Your task to perform on an android device: add a contact in the contacts app Image 0: 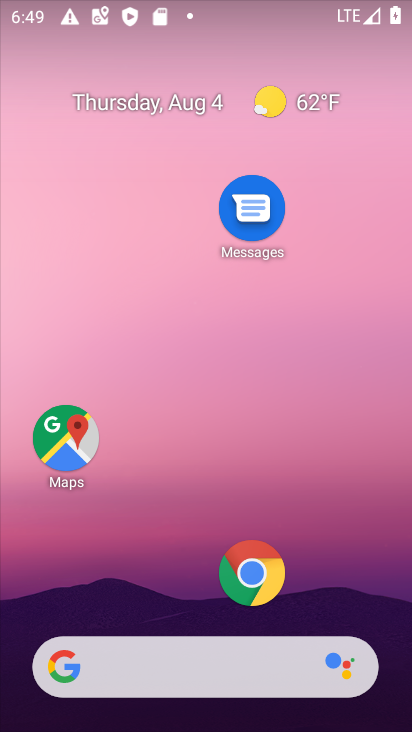
Step 0: press home button
Your task to perform on an android device: add a contact in the contacts app Image 1: 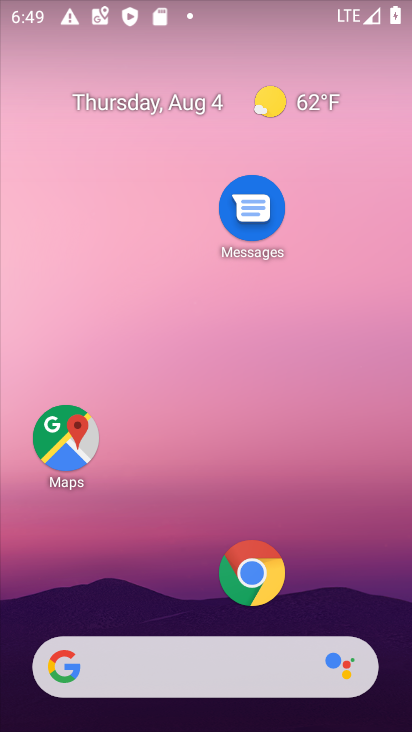
Step 1: drag from (199, 483) to (299, 3)
Your task to perform on an android device: add a contact in the contacts app Image 2: 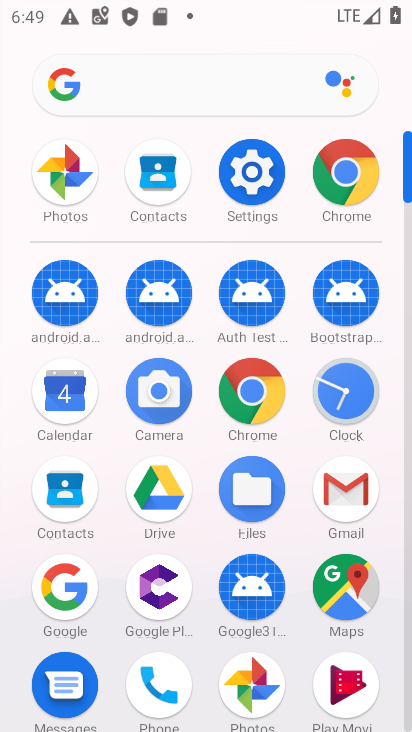
Step 2: click (74, 510)
Your task to perform on an android device: add a contact in the contacts app Image 3: 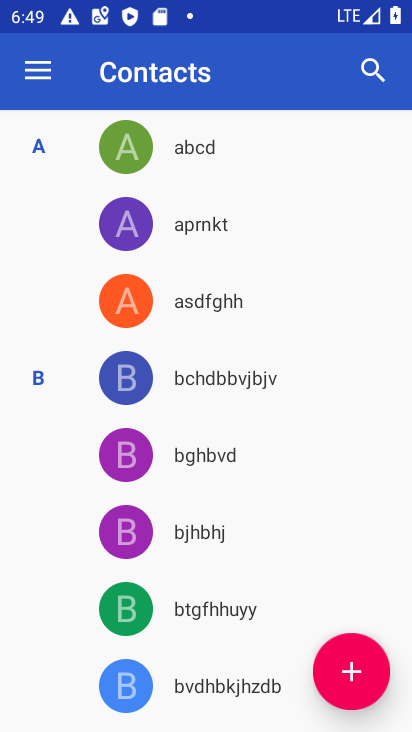
Step 3: click (353, 696)
Your task to perform on an android device: add a contact in the contacts app Image 4: 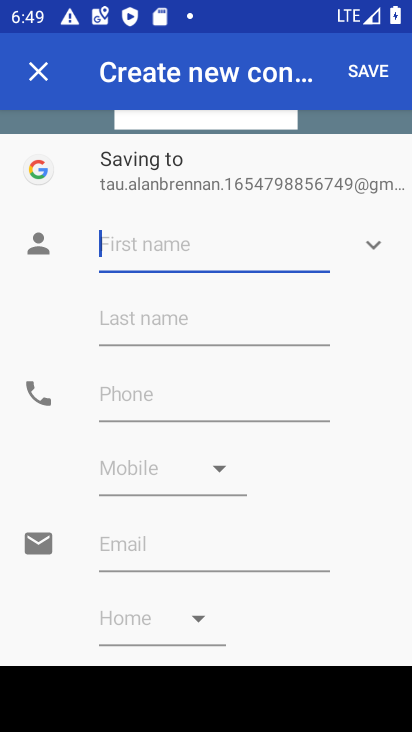
Step 4: type "bvbvbvbvb"
Your task to perform on an android device: add a contact in the contacts app Image 5: 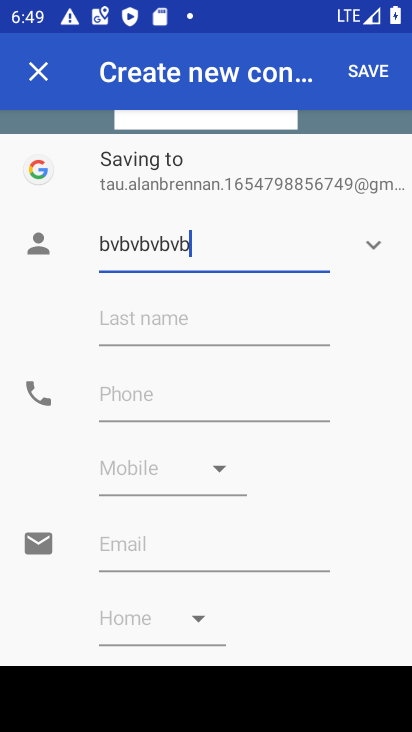
Step 5: click (151, 396)
Your task to perform on an android device: add a contact in the contacts app Image 6: 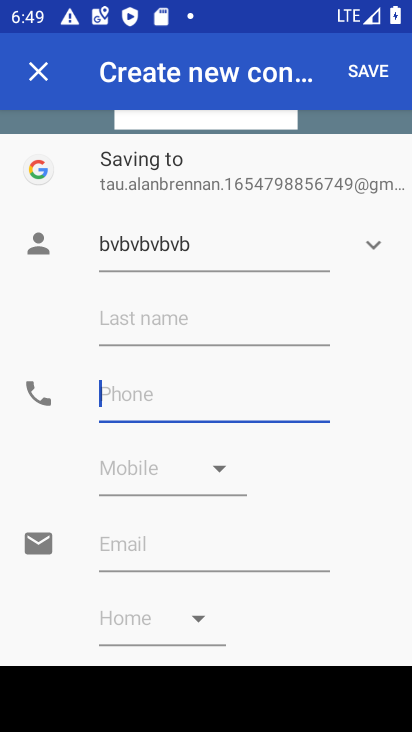
Step 6: type "7676767"
Your task to perform on an android device: add a contact in the contacts app Image 7: 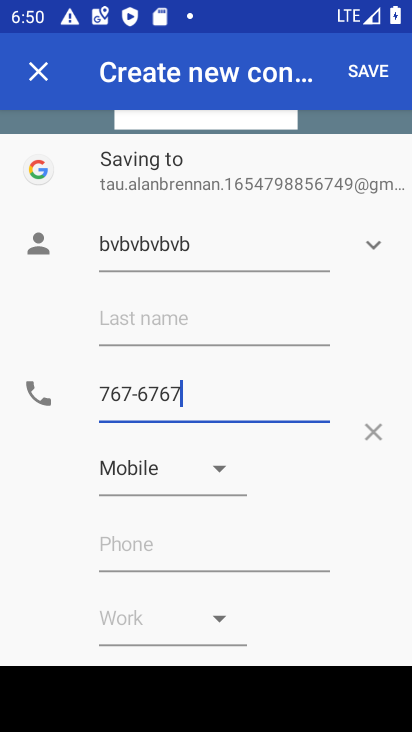
Step 7: click (366, 70)
Your task to perform on an android device: add a contact in the contacts app Image 8: 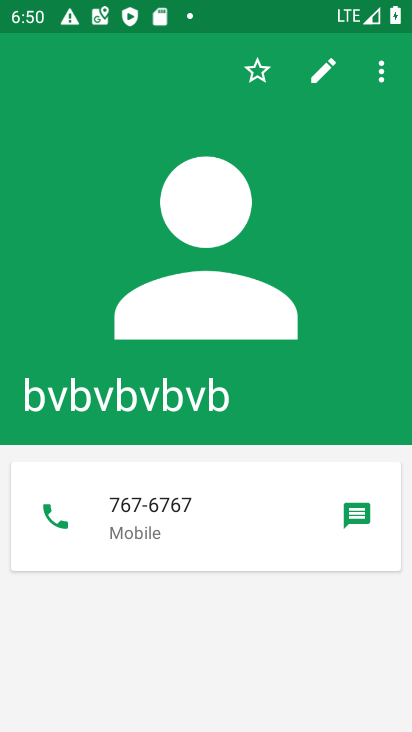
Step 8: task complete